Your task to perform on an android device: Go to eBay Image 0: 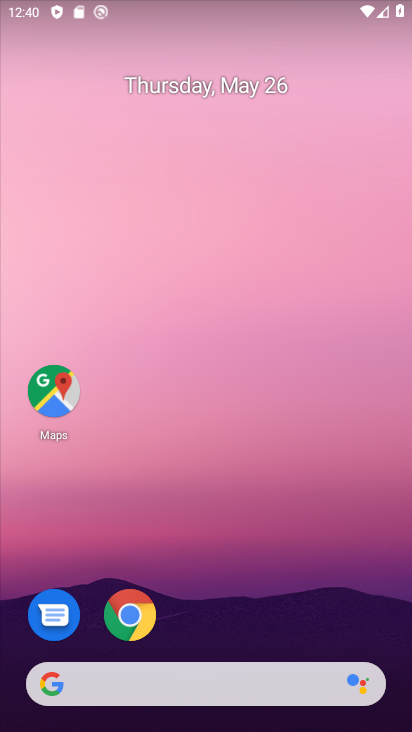
Step 0: click (142, 614)
Your task to perform on an android device: Go to eBay Image 1: 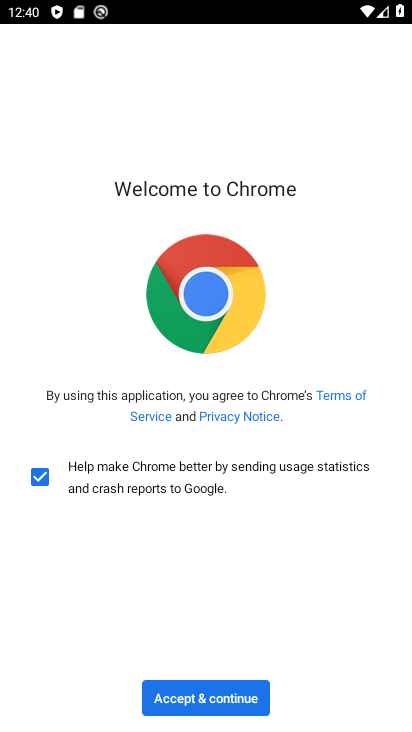
Step 1: click (231, 707)
Your task to perform on an android device: Go to eBay Image 2: 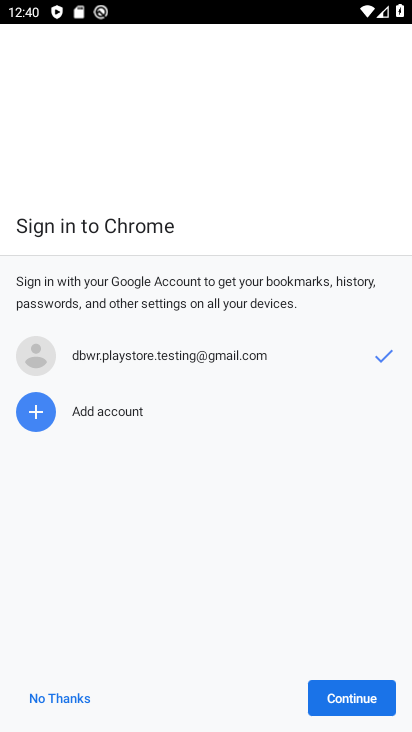
Step 2: click (348, 691)
Your task to perform on an android device: Go to eBay Image 3: 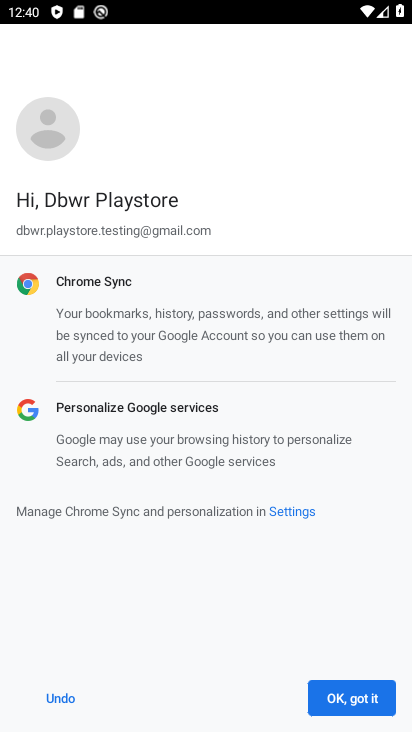
Step 3: click (367, 700)
Your task to perform on an android device: Go to eBay Image 4: 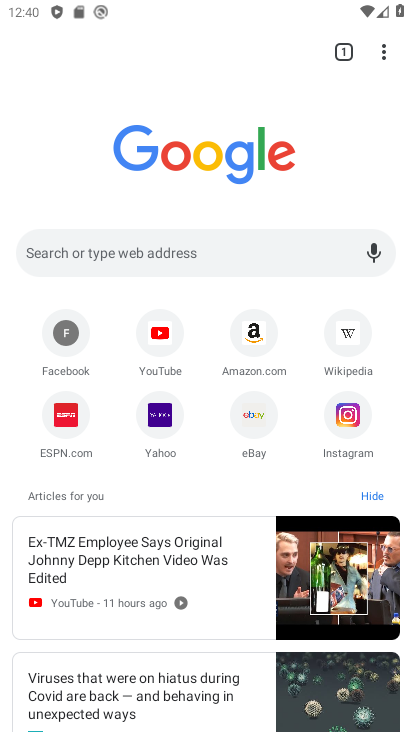
Step 4: click (264, 409)
Your task to perform on an android device: Go to eBay Image 5: 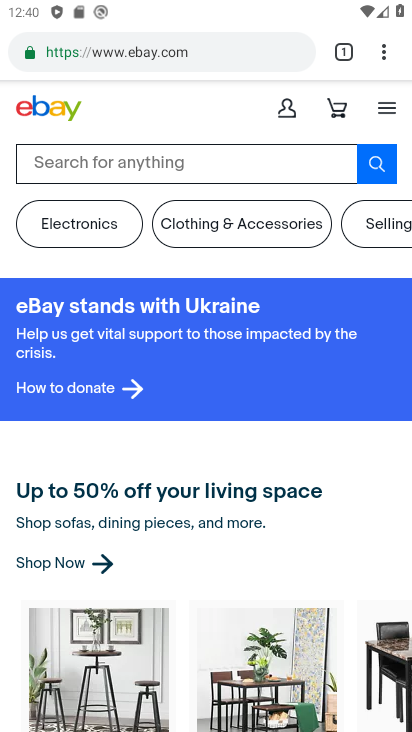
Step 5: task complete